Your task to perform on an android device: Open location settings Image 0: 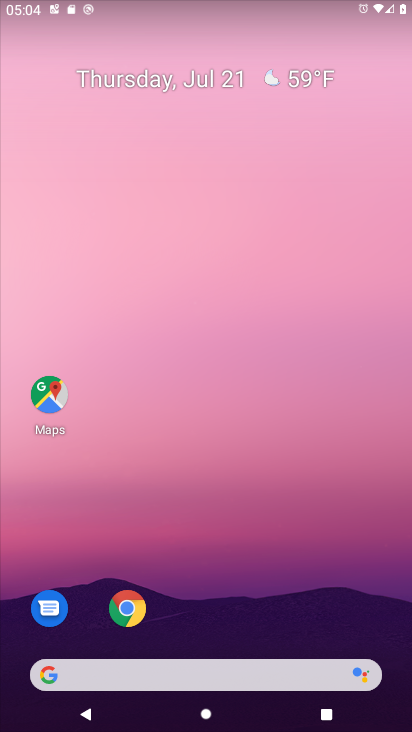
Step 0: drag from (271, 666) to (349, 154)
Your task to perform on an android device: Open location settings Image 1: 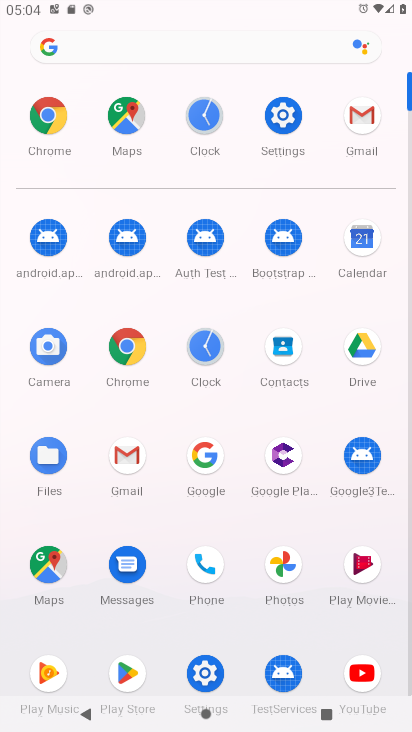
Step 1: click (285, 123)
Your task to perform on an android device: Open location settings Image 2: 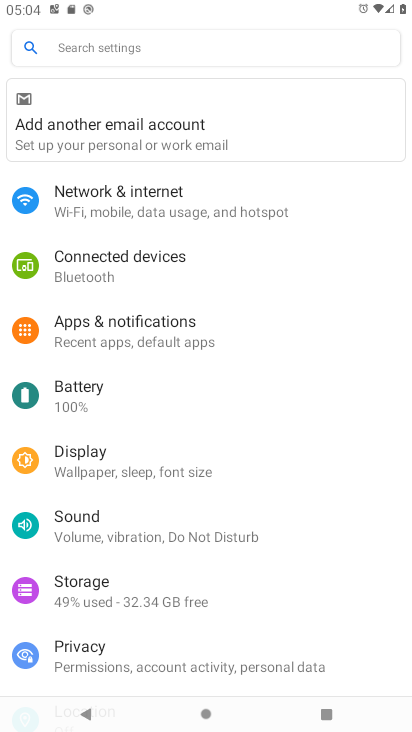
Step 2: drag from (106, 636) to (152, 328)
Your task to perform on an android device: Open location settings Image 3: 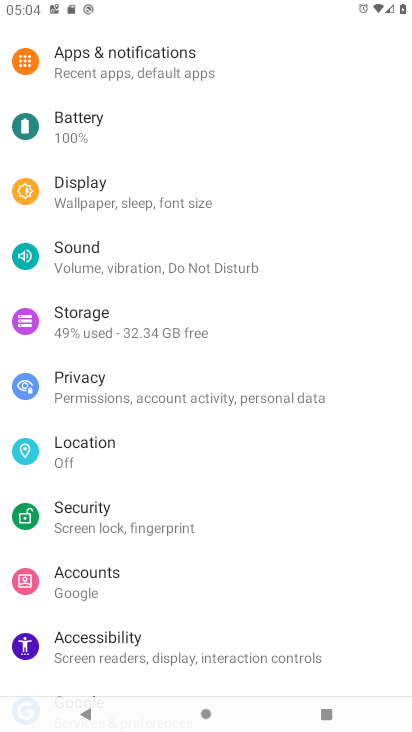
Step 3: click (105, 444)
Your task to perform on an android device: Open location settings Image 4: 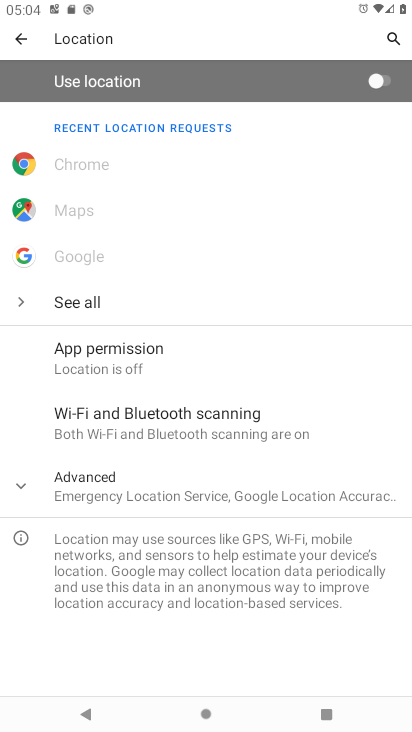
Step 4: task complete